Your task to perform on an android device: Open sound settings Image 0: 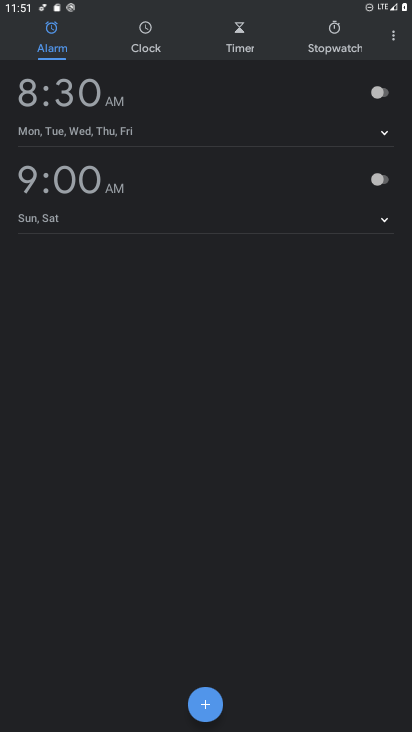
Step 0: press home button
Your task to perform on an android device: Open sound settings Image 1: 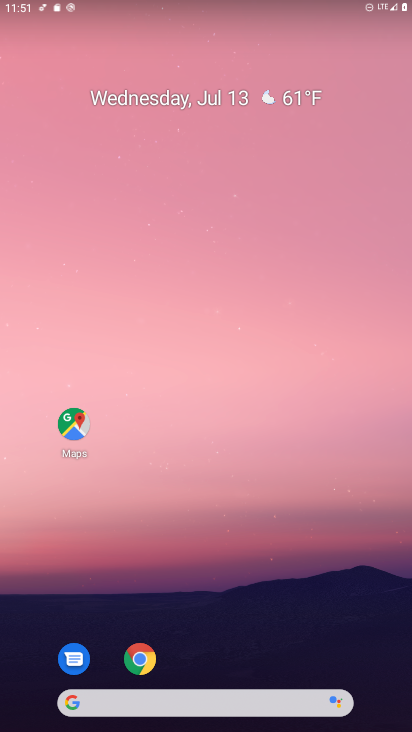
Step 1: drag from (355, 581) to (321, 81)
Your task to perform on an android device: Open sound settings Image 2: 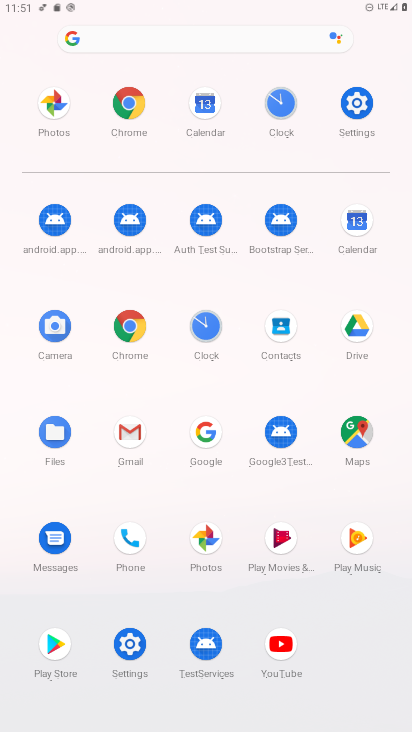
Step 2: click (129, 641)
Your task to perform on an android device: Open sound settings Image 3: 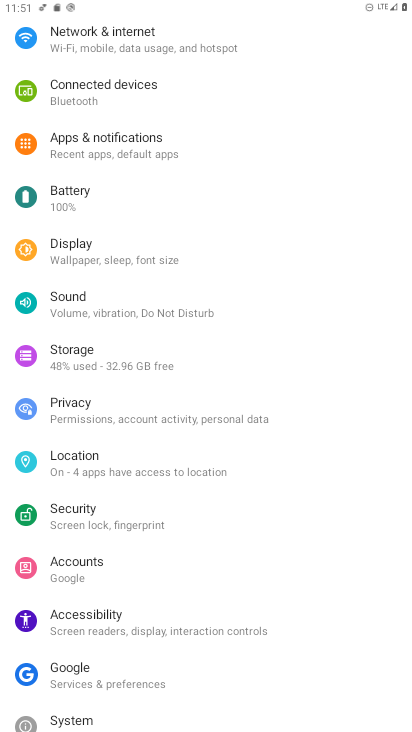
Step 3: click (71, 298)
Your task to perform on an android device: Open sound settings Image 4: 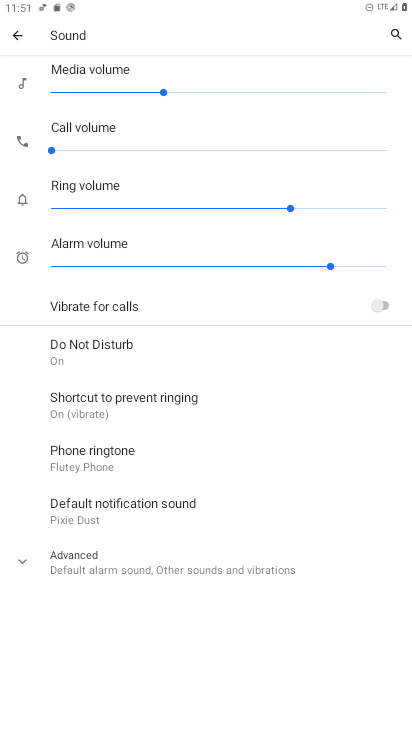
Step 4: click (20, 565)
Your task to perform on an android device: Open sound settings Image 5: 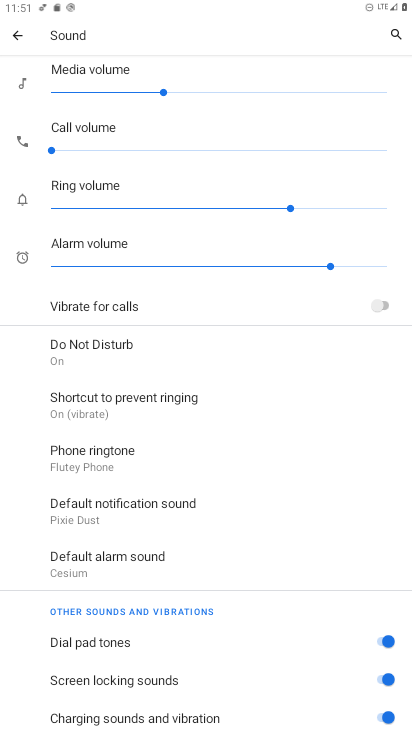
Step 5: task complete